Your task to perform on an android device: turn off location history Image 0: 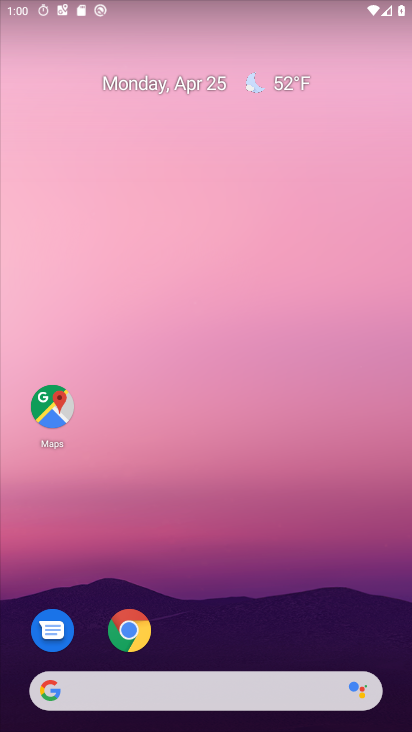
Step 0: drag from (179, 624) to (20, 5)
Your task to perform on an android device: turn off location history Image 1: 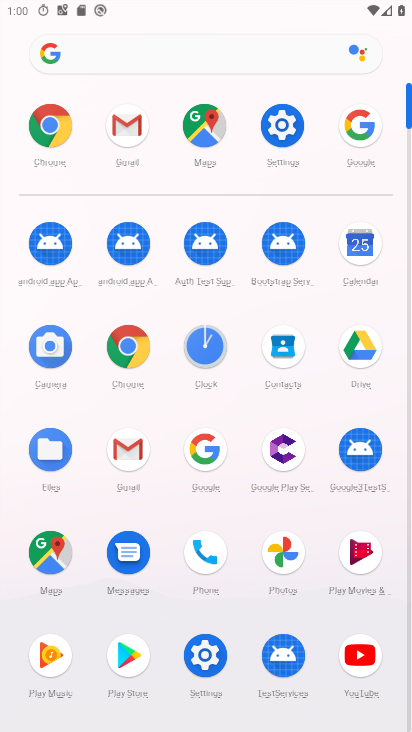
Step 1: click (278, 139)
Your task to perform on an android device: turn off location history Image 2: 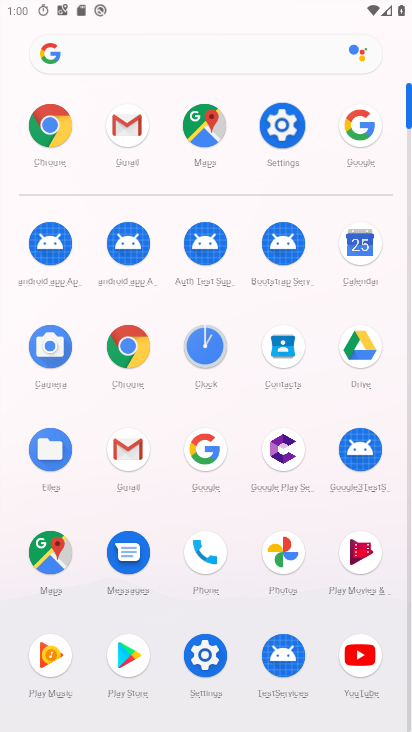
Step 2: click (278, 139)
Your task to perform on an android device: turn off location history Image 3: 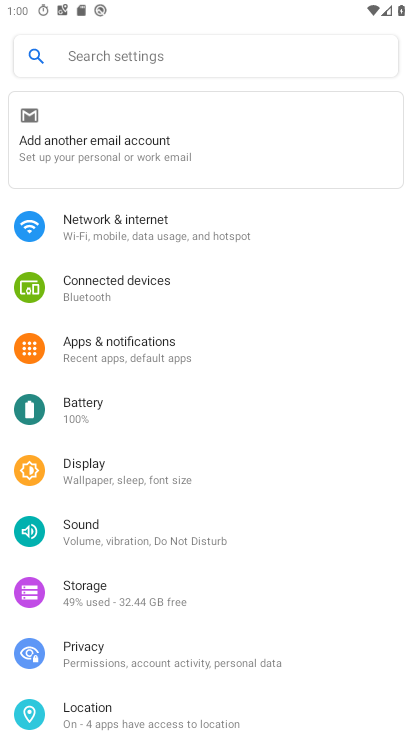
Step 3: drag from (147, 535) to (233, 172)
Your task to perform on an android device: turn off location history Image 4: 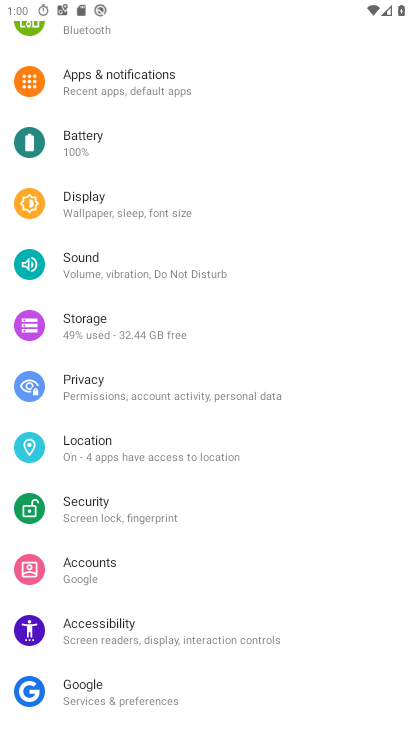
Step 4: click (130, 455)
Your task to perform on an android device: turn off location history Image 5: 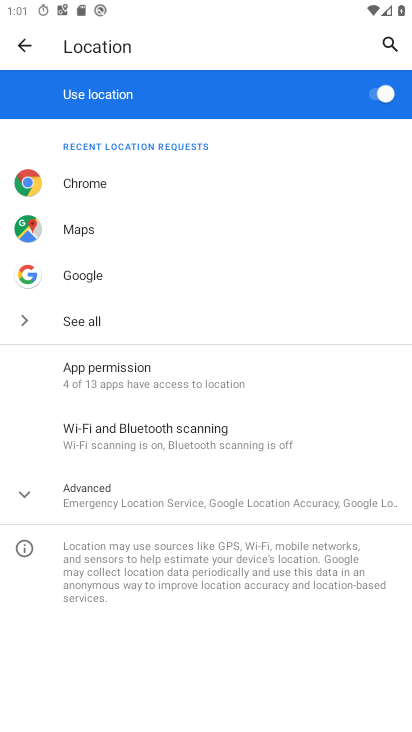
Step 5: click (161, 373)
Your task to perform on an android device: turn off location history Image 6: 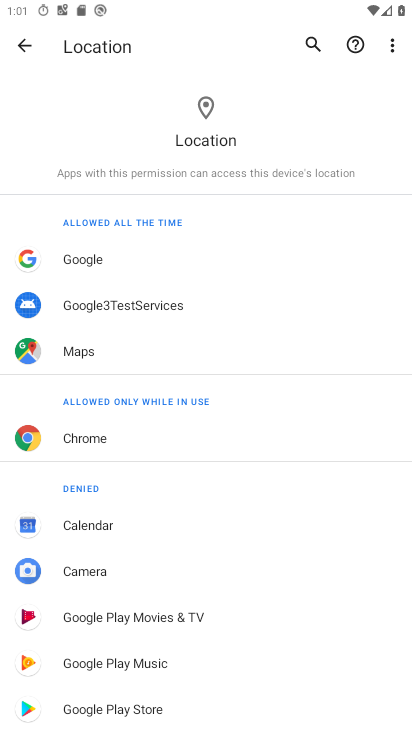
Step 6: click (29, 43)
Your task to perform on an android device: turn off location history Image 7: 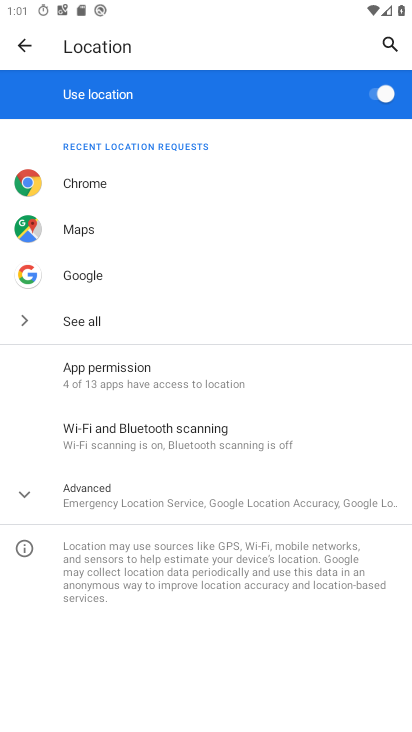
Step 7: drag from (103, 215) to (228, 603)
Your task to perform on an android device: turn off location history Image 8: 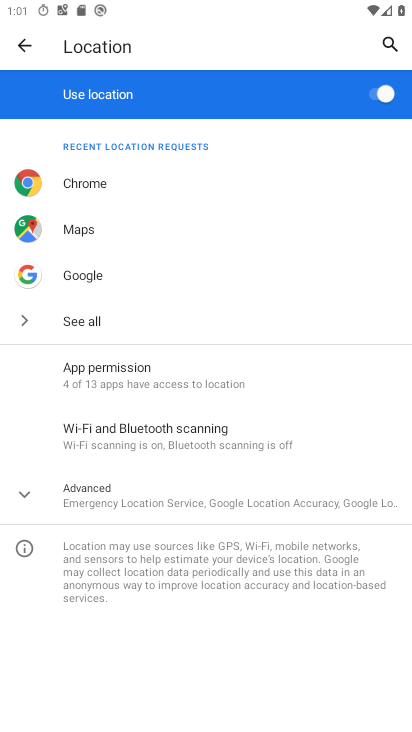
Step 8: click (26, 41)
Your task to perform on an android device: turn off location history Image 9: 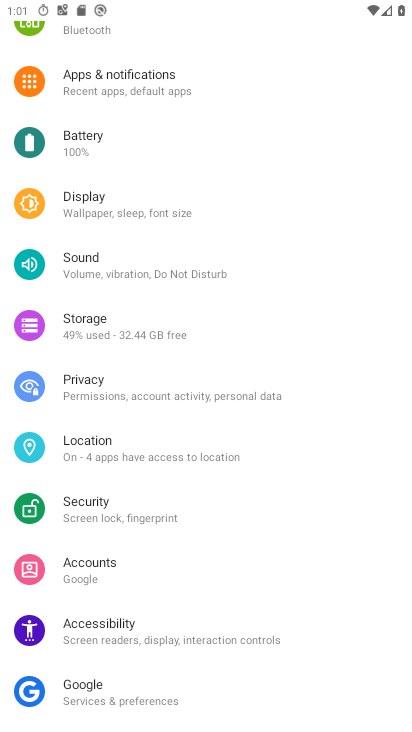
Step 9: click (114, 455)
Your task to perform on an android device: turn off location history Image 10: 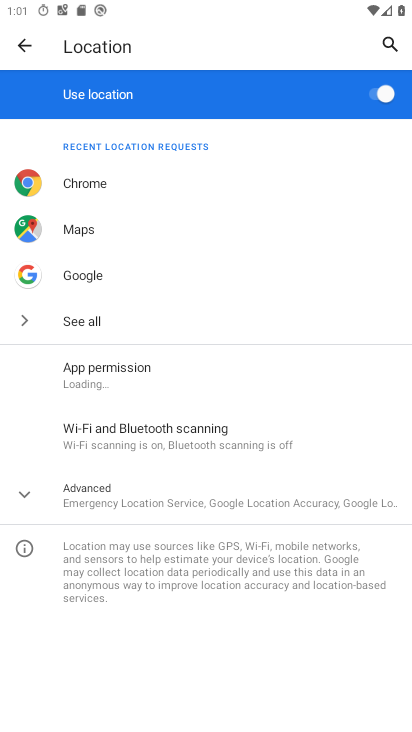
Step 10: click (121, 491)
Your task to perform on an android device: turn off location history Image 11: 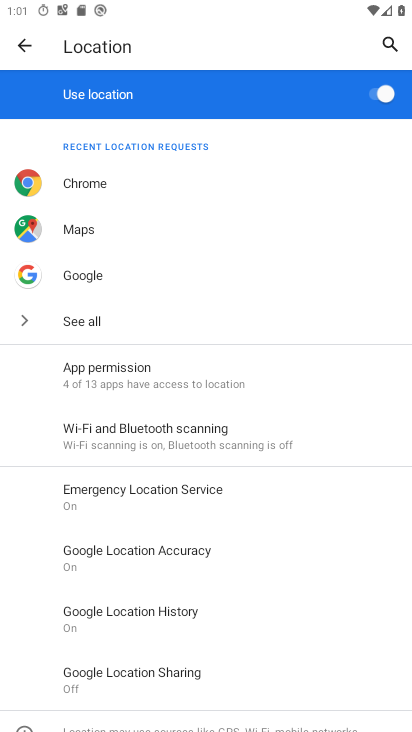
Step 11: click (166, 634)
Your task to perform on an android device: turn off location history Image 12: 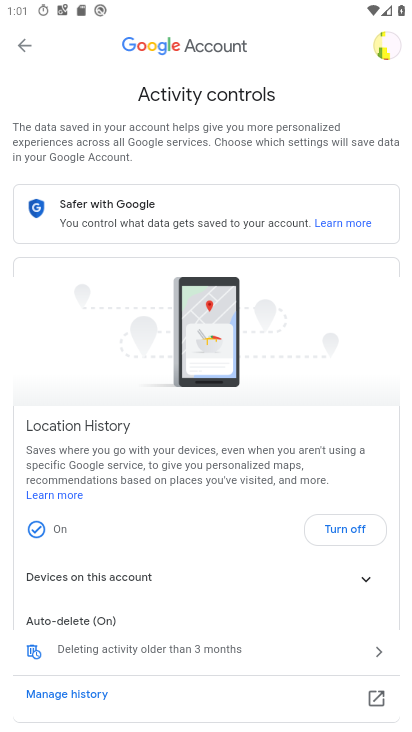
Step 12: drag from (204, 608) to (212, 240)
Your task to perform on an android device: turn off location history Image 13: 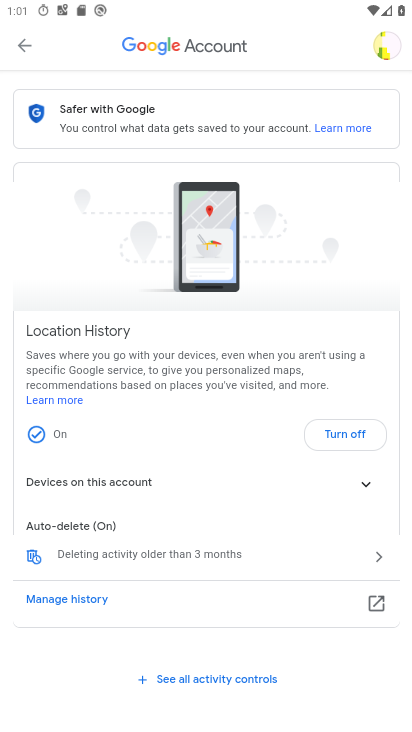
Step 13: drag from (253, 524) to (255, 264)
Your task to perform on an android device: turn off location history Image 14: 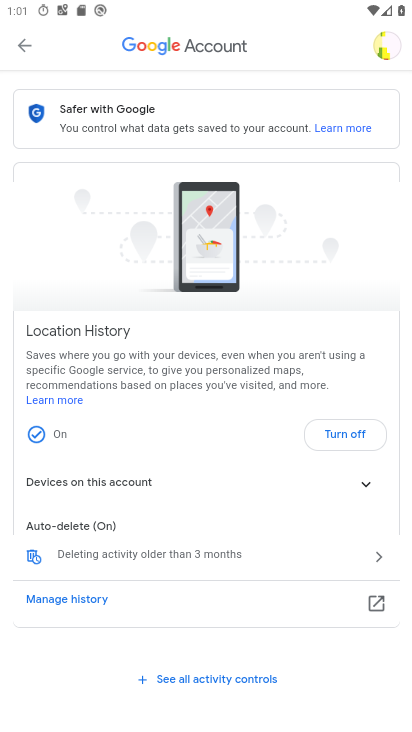
Step 14: drag from (234, 269) to (217, 707)
Your task to perform on an android device: turn off location history Image 15: 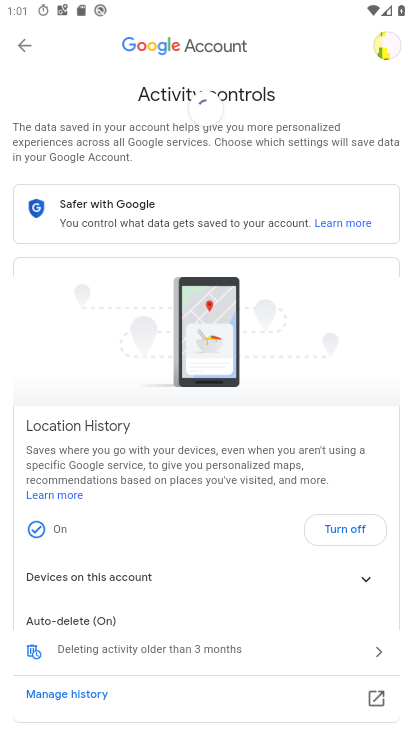
Step 15: drag from (228, 315) to (234, 183)
Your task to perform on an android device: turn off location history Image 16: 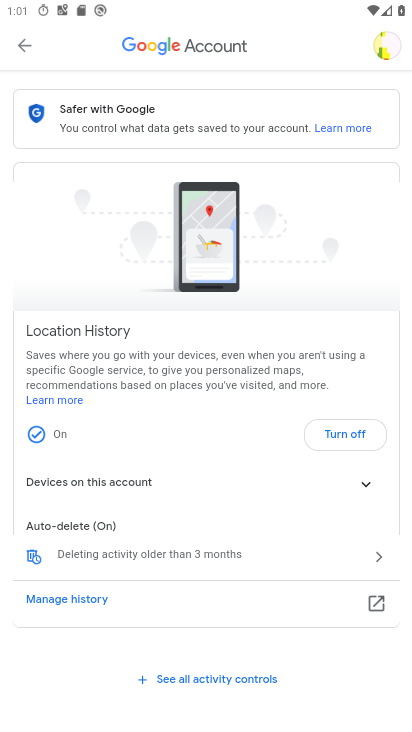
Step 16: drag from (249, 530) to (259, 277)
Your task to perform on an android device: turn off location history Image 17: 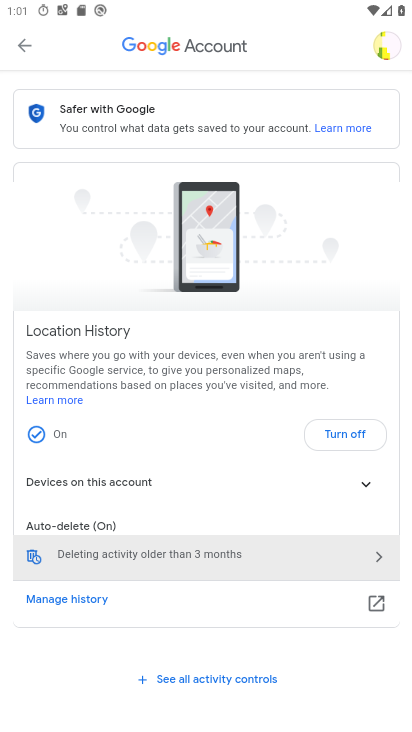
Step 17: drag from (267, 279) to (305, 731)
Your task to perform on an android device: turn off location history Image 18: 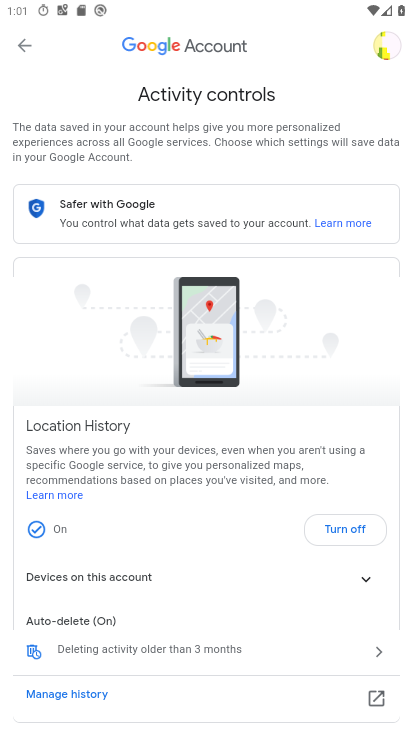
Step 18: click (374, 38)
Your task to perform on an android device: turn off location history Image 19: 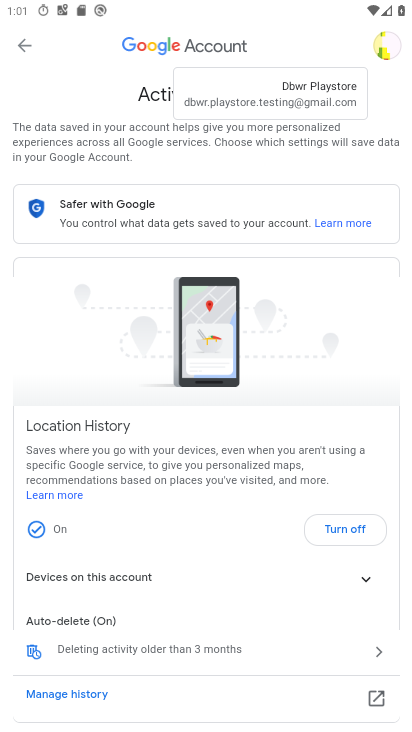
Step 19: click (388, 84)
Your task to perform on an android device: turn off location history Image 20: 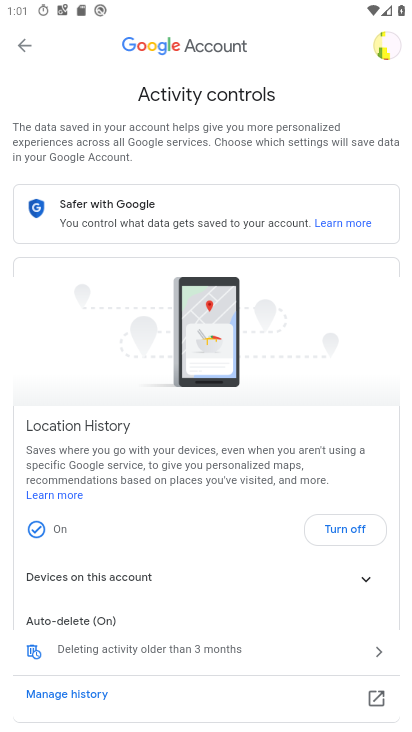
Step 20: click (293, 226)
Your task to perform on an android device: turn off location history Image 21: 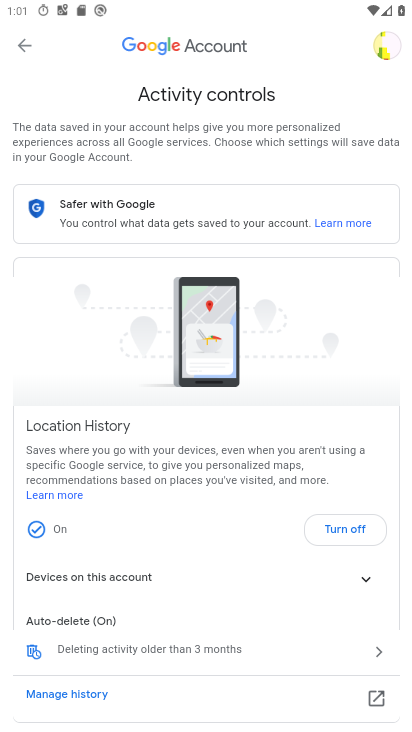
Step 21: drag from (239, 545) to (275, 255)
Your task to perform on an android device: turn off location history Image 22: 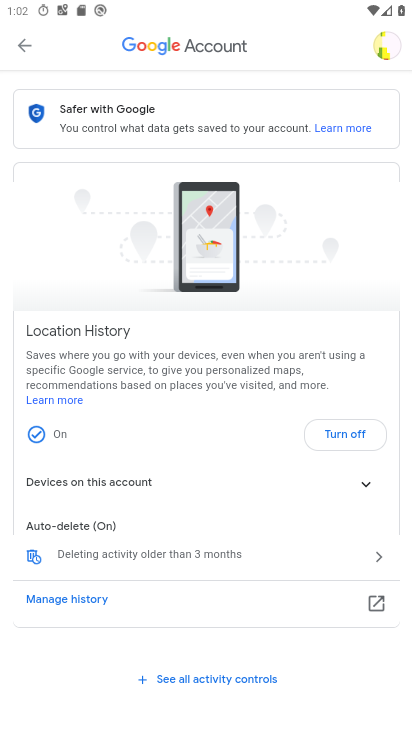
Step 22: click (339, 433)
Your task to perform on an android device: turn off location history Image 23: 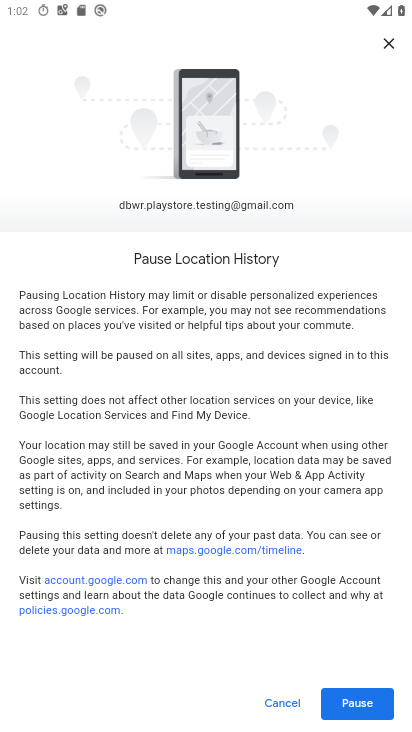
Step 23: drag from (225, 591) to (294, 244)
Your task to perform on an android device: turn off location history Image 24: 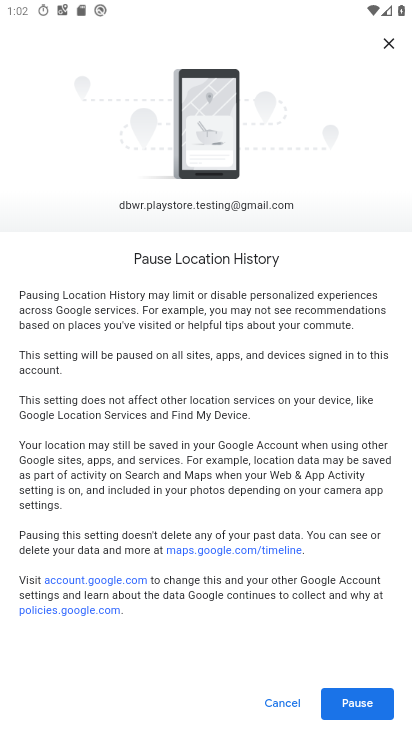
Step 24: click (339, 702)
Your task to perform on an android device: turn off location history Image 25: 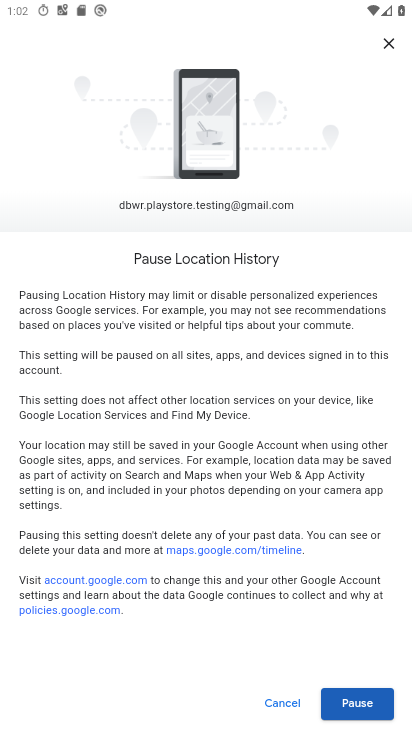
Step 25: click (368, 690)
Your task to perform on an android device: turn off location history Image 26: 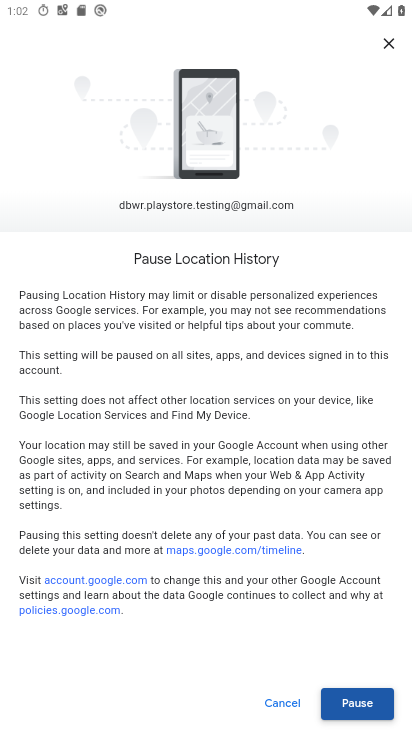
Step 26: click (355, 706)
Your task to perform on an android device: turn off location history Image 27: 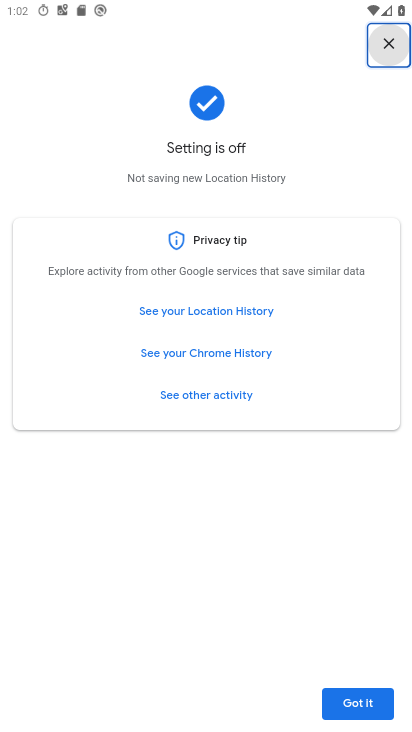
Step 27: click (363, 700)
Your task to perform on an android device: turn off location history Image 28: 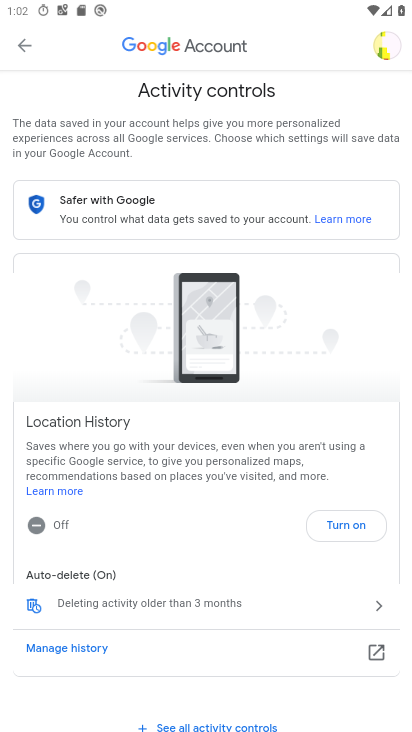
Step 28: task complete